Your task to perform on an android device: What's the weather going to be tomorrow? Image 0: 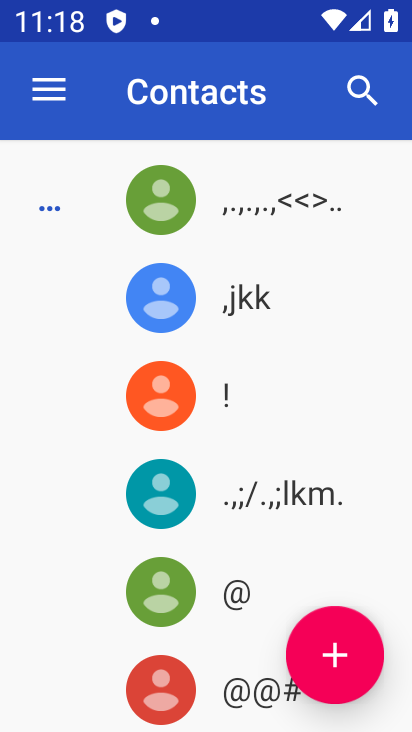
Step 0: press home button
Your task to perform on an android device: What's the weather going to be tomorrow? Image 1: 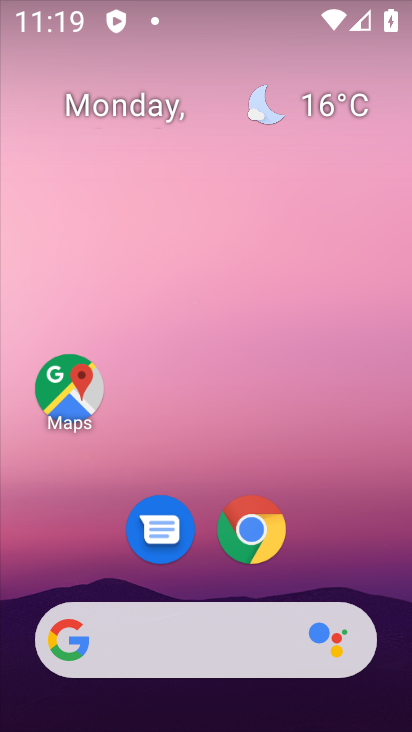
Step 1: click (249, 527)
Your task to perform on an android device: What's the weather going to be tomorrow? Image 2: 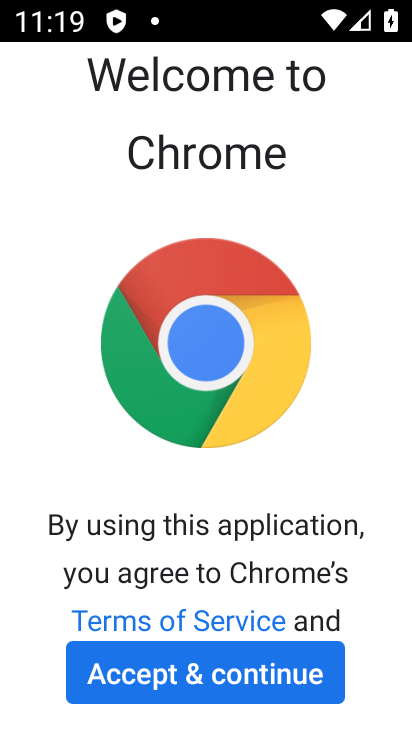
Step 2: click (194, 679)
Your task to perform on an android device: What's the weather going to be tomorrow? Image 3: 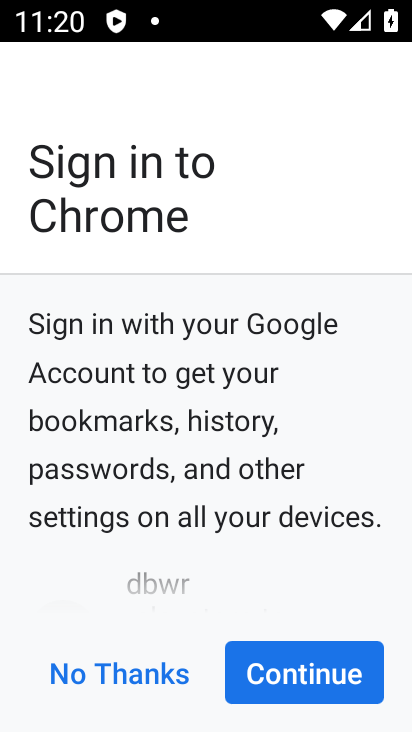
Step 3: click (277, 684)
Your task to perform on an android device: What's the weather going to be tomorrow? Image 4: 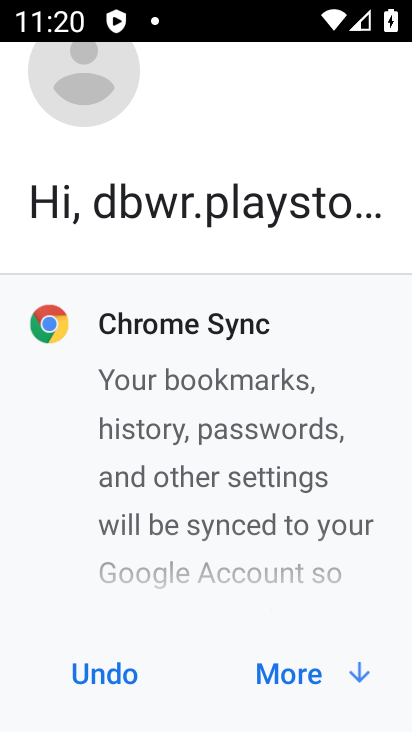
Step 4: click (327, 664)
Your task to perform on an android device: What's the weather going to be tomorrow? Image 5: 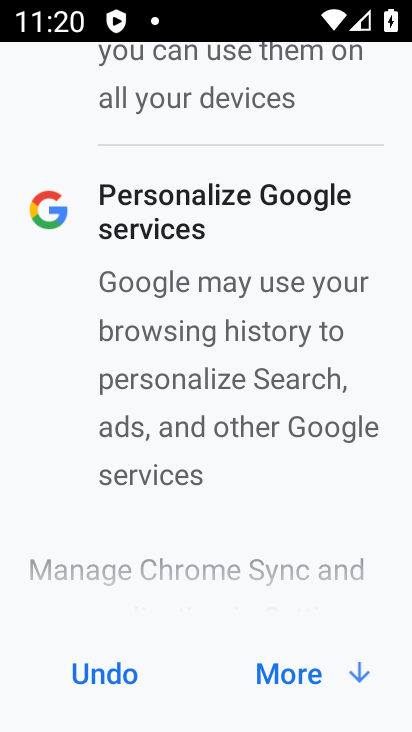
Step 5: click (335, 684)
Your task to perform on an android device: What's the weather going to be tomorrow? Image 6: 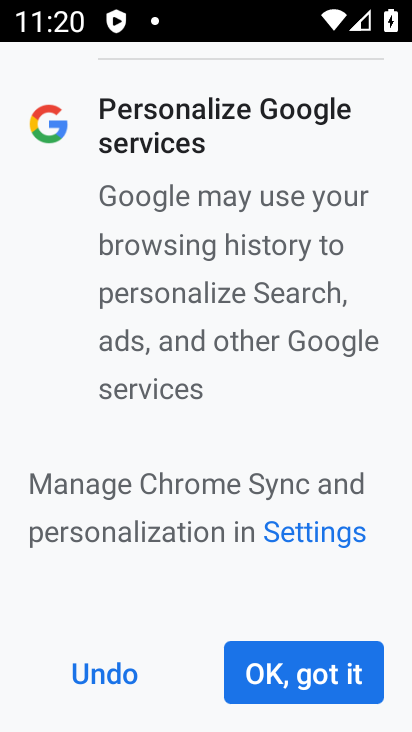
Step 6: click (327, 673)
Your task to perform on an android device: What's the weather going to be tomorrow? Image 7: 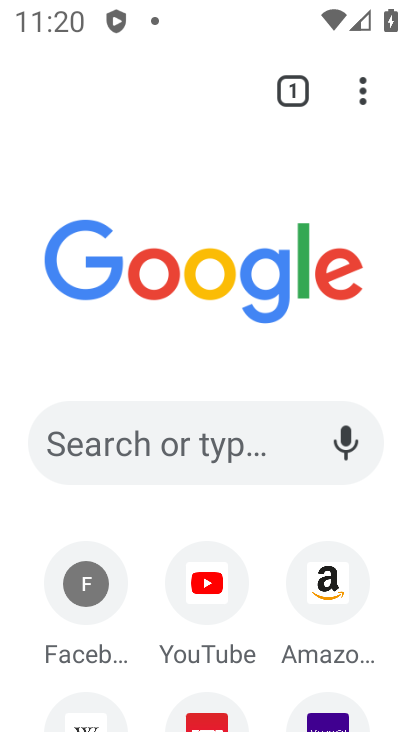
Step 7: click (178, 438)
Your task to perform on an android device: What's the weather going to be tomorrow? Image 8: 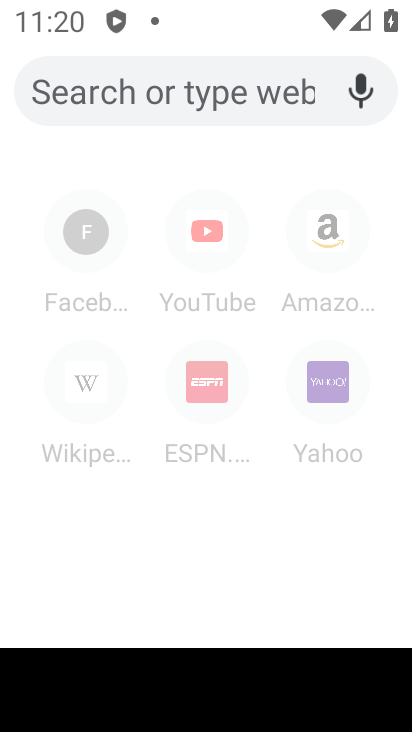
Step 8: type "What's the weather going to be tomorrow?"
Your task to perform on an android device: What's the weather going to be tomorrow? Image 9: 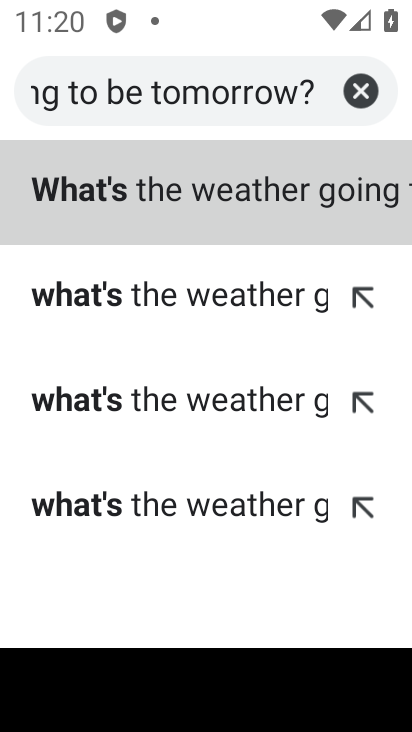
Step 9: click (341, 182)
Your task to perform on an android device: What's the weather going to be tomorrow? Image 10: 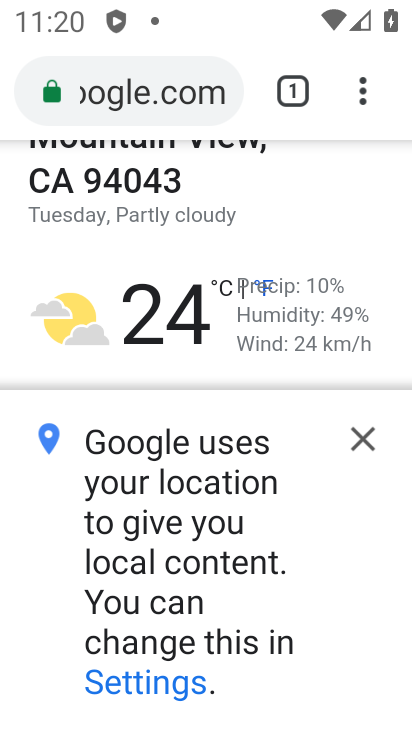
Step 10: task complete